Your task to perform on an android device: turn on airplane mode Image 0: 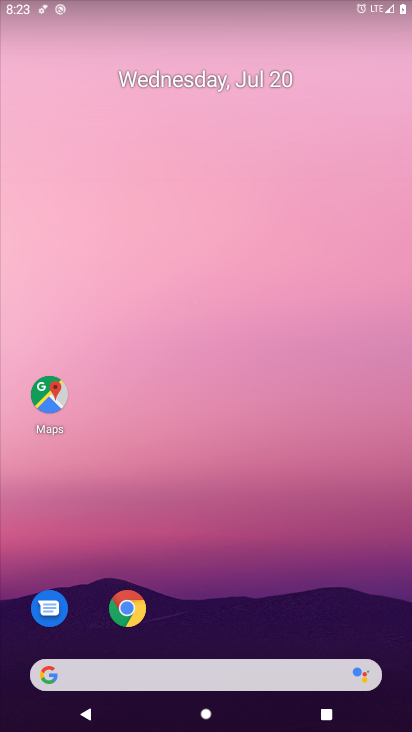
Step 0: drag from (243, 546) to (287, 112)
Your task to perform on an android device: turn on airplane mode Image 1: 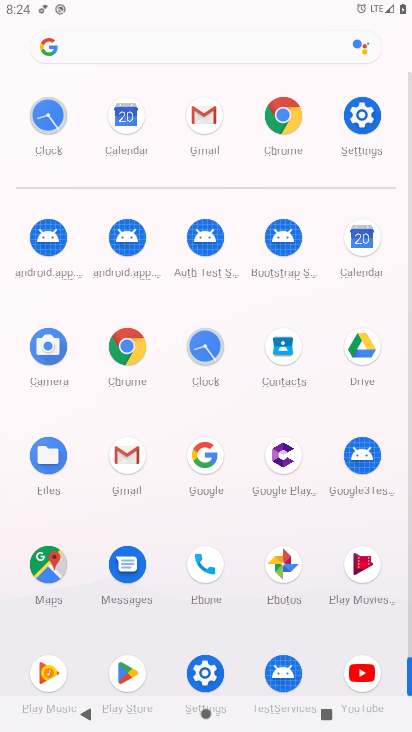
Step 1: click (360, 135)
Your task to perform on an android device: turn on airplane mode Image 2: 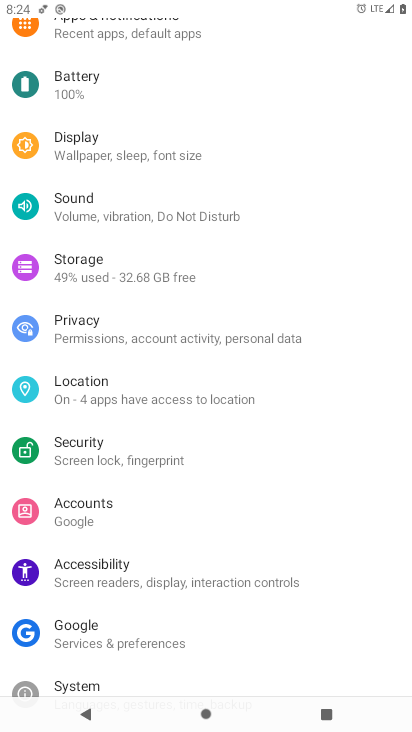
Step 2: drag from (221, 135) to (206, 626)
Your task to perform on an android device: turn on airplane mode Image 3: 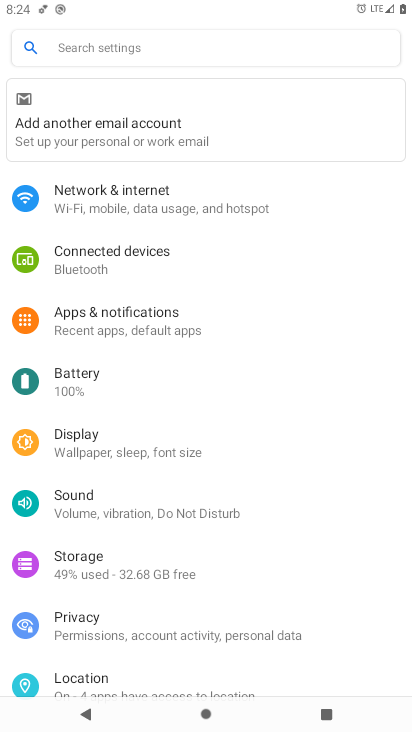
Step 3: click (174, 202)
Your task to perform on an android device: turn on airplane mode Image 4: 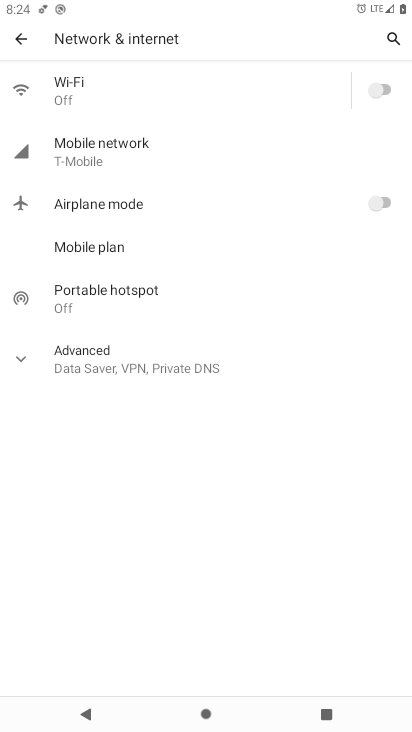
Step 4: click (392, 205)
Your task to perform on an android device: turn on airplane mode Image 5: 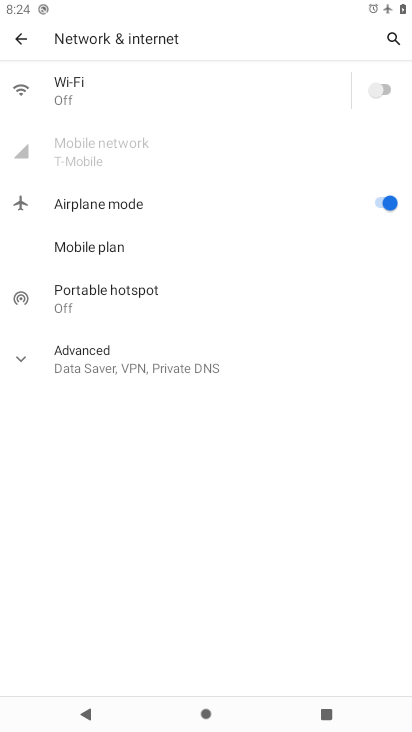
Step 5: task complete